Your task to perform on an android device: snooze an email in the gmail app Image 0: 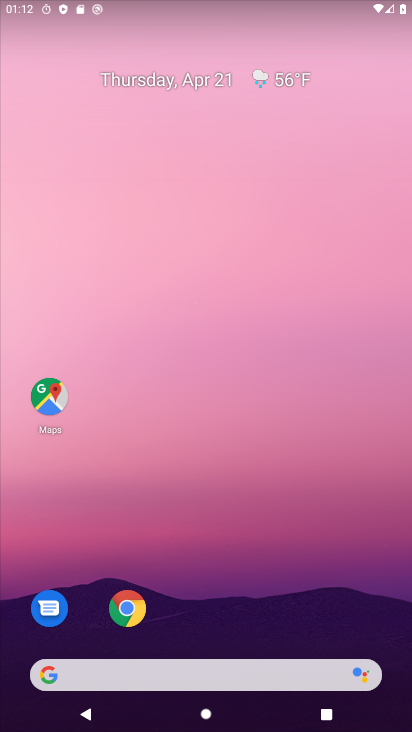
Step 0: drag from (307, 511) to (307, 101)
Your task to perform on an android device: snooze an email in the gmail app Image 1: 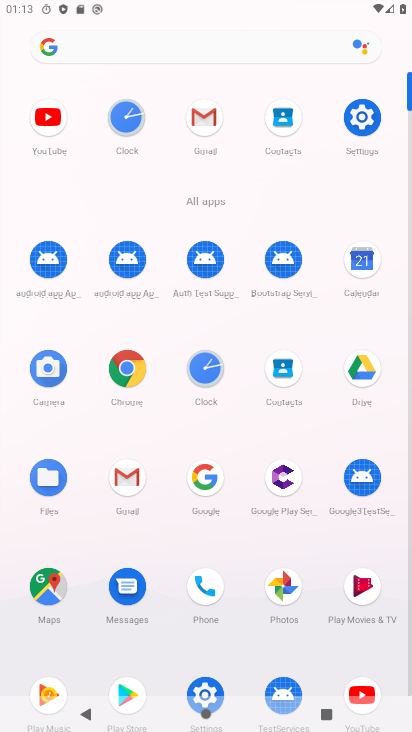
Step 1: click (208, 119)
Your task to perform on an android device: snooze an email in the gmail app Image 2: 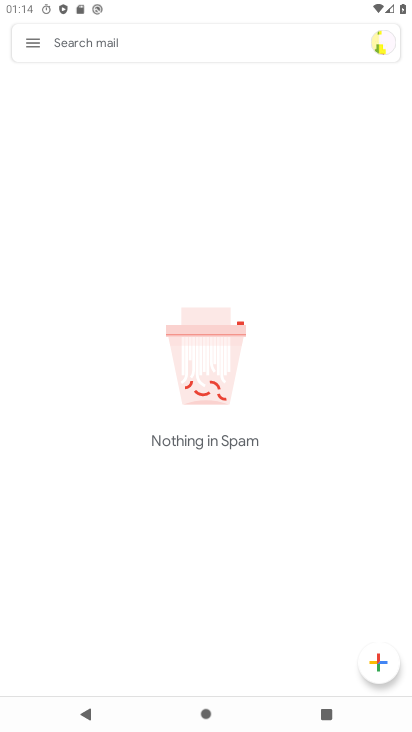
Step 2: click (34, 36)
Your task to perform on an android device: snooze an email in the gmail app Image 3: 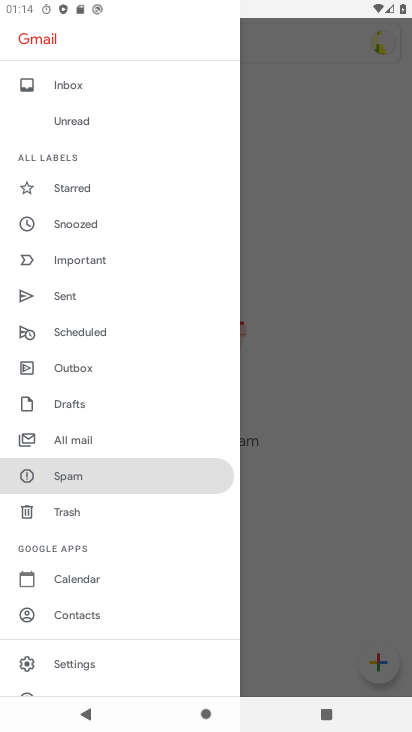
Step 3: click (74, 437)
Your task to perform on an android device: snooze an email in the gmail app Image 4: 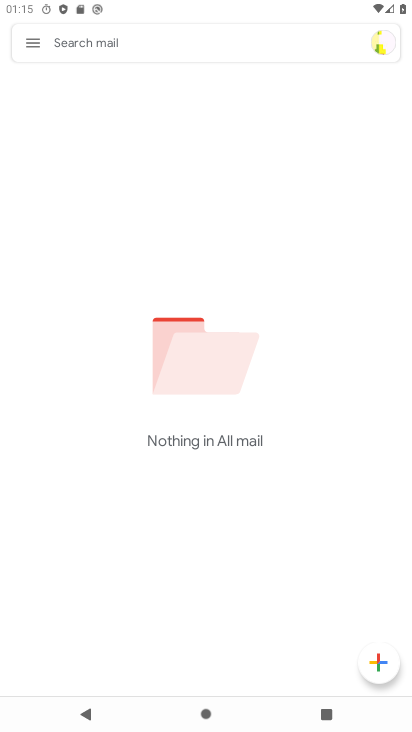
Step 4: task complete